Your task to perform on an android device: change keyboard looks Image 0: 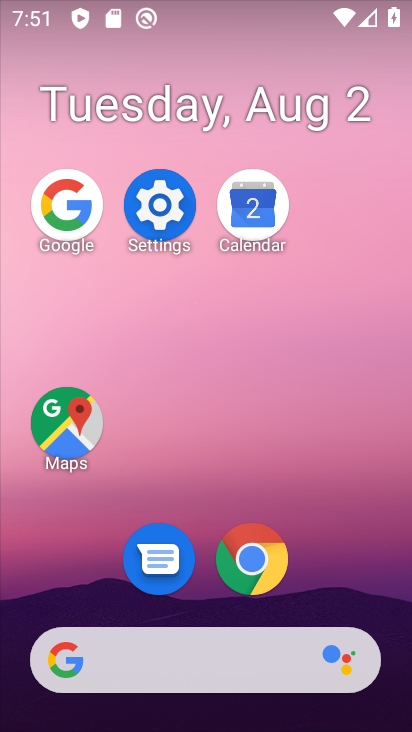
Step 0: click (171, 217)
Your task to perform on an android device: change keyboard looks Image 1: 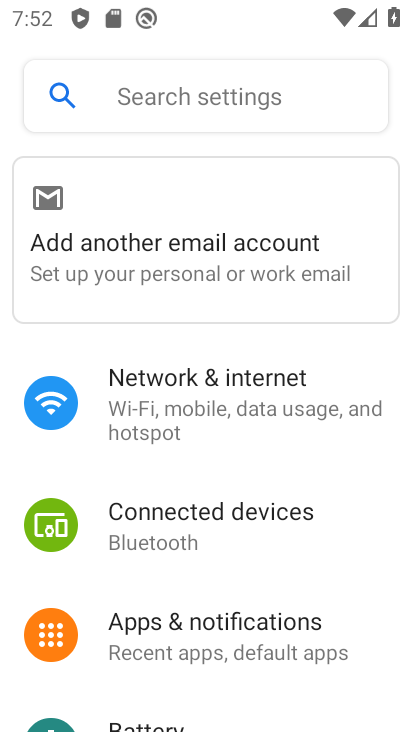
Step 1: drag from (230, 532) to (267, 157)
Your task to perform on an android device: change keyboard looks Image 2: 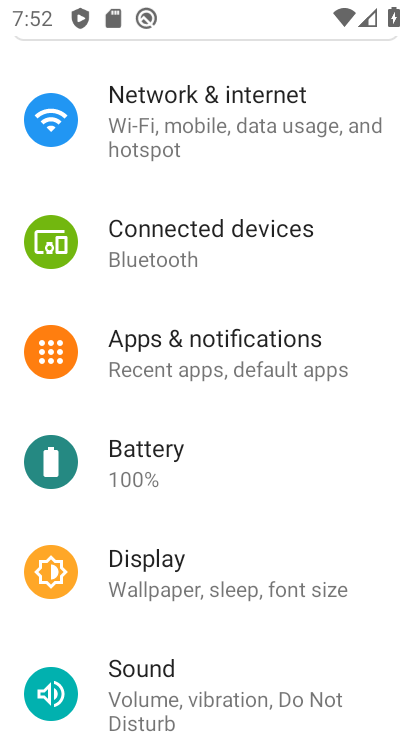
Step 2: drag from (289, 588) to (310, 122)
Your task to perform on an android device: change keyboard looks Image 3: 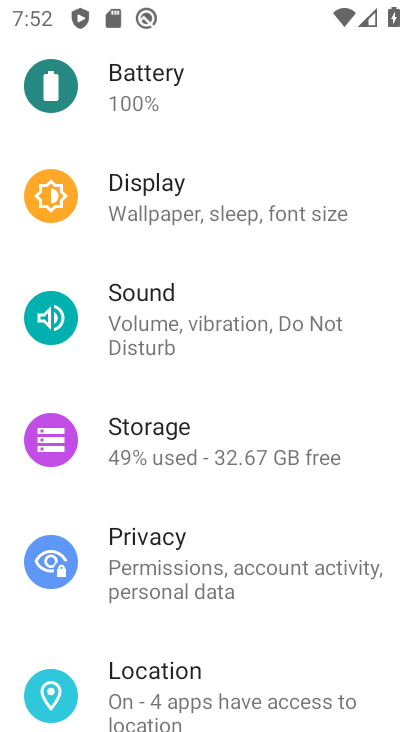
Step 3: drag from (281, 570) to (290, 171)
Your task to perform on an android device: change keyboard looks Image 4: 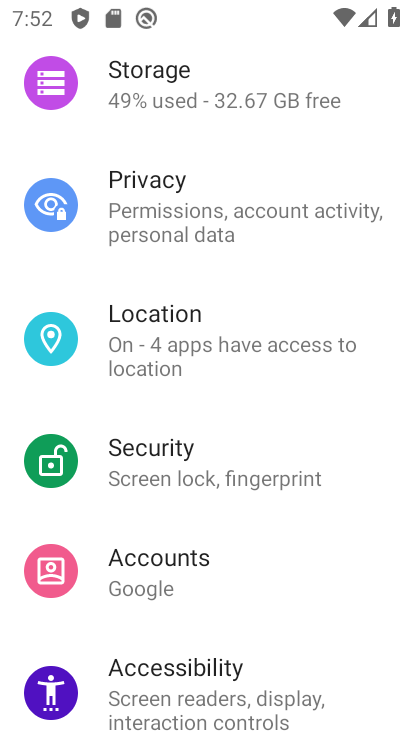
Step 4: drag from (290, 168) to (316, 364)
Your task to perform on an android device: change keyboard looks Image 5: 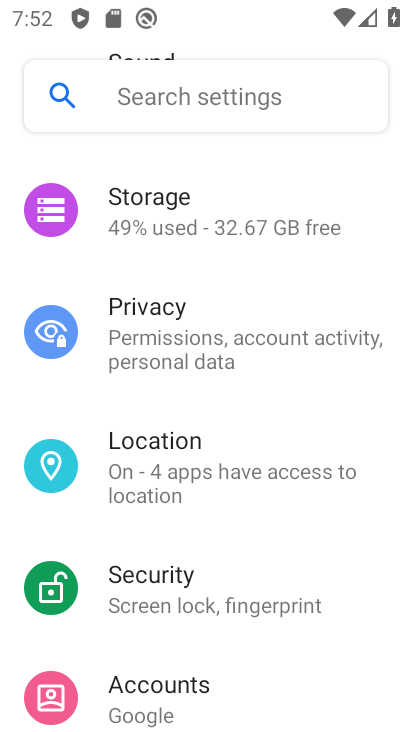
Step 5: drag from (285, 593) to (309, 284)
Your task to perform on an android device: change keyboard looks Image 6: 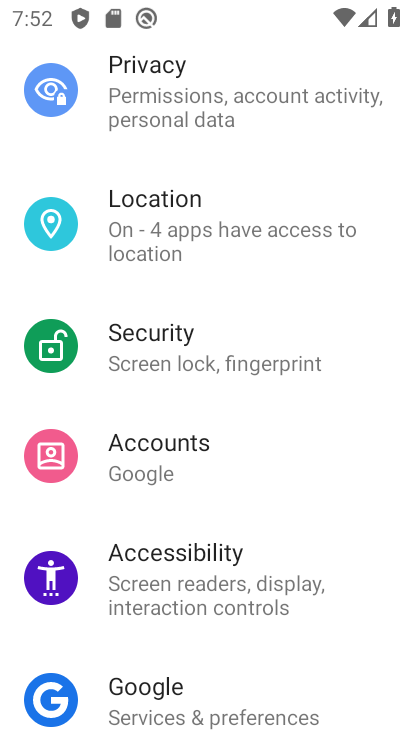
Step 6: drag from (307, 659) to (315, 309)
Your task to perform on an android device: change keyboard looks Image 7: 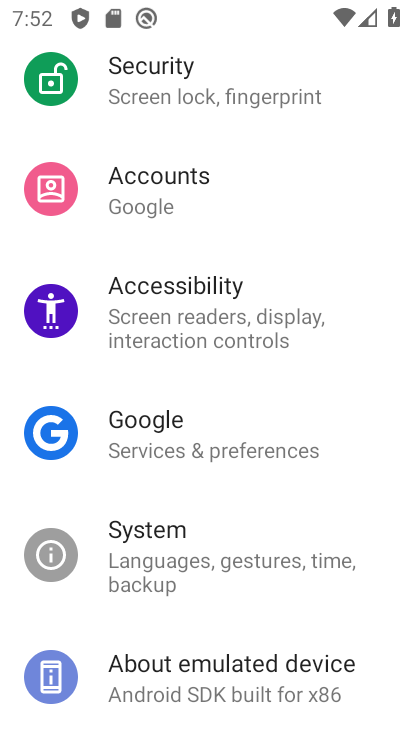
Step 7: drag from (307, 629) to (273, 275)
Your task to perform on an android device: change keyboard looks Image 8: 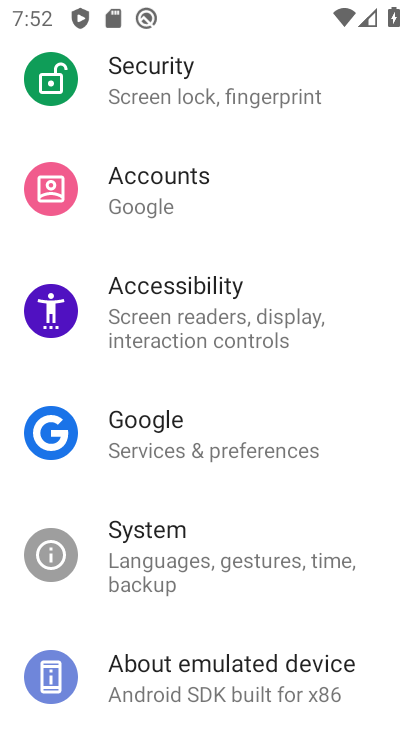
Step 8: click (247, 563)
Your task to perform on an android device: change keyboard looks Image 9: 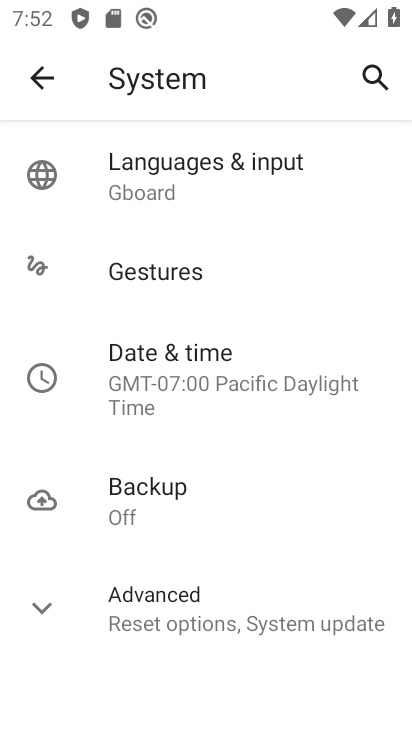
Step 9: click (118, 146)
Your task to perform on an android device: change keyboard looks Image 10: 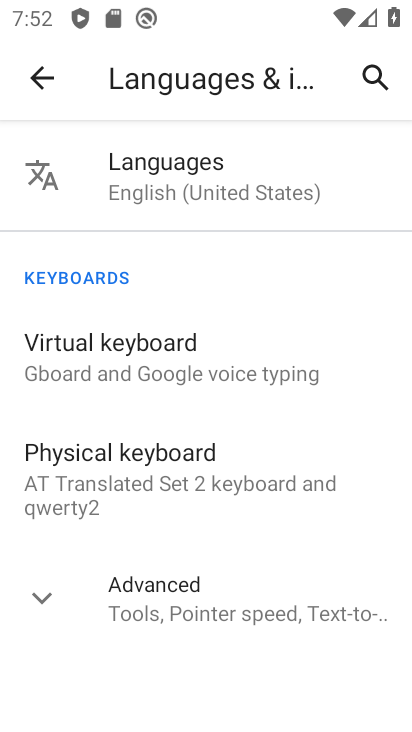
Step 10: click (155, 354)
Your task to perform on an android device: change keyboard looks Image 11: 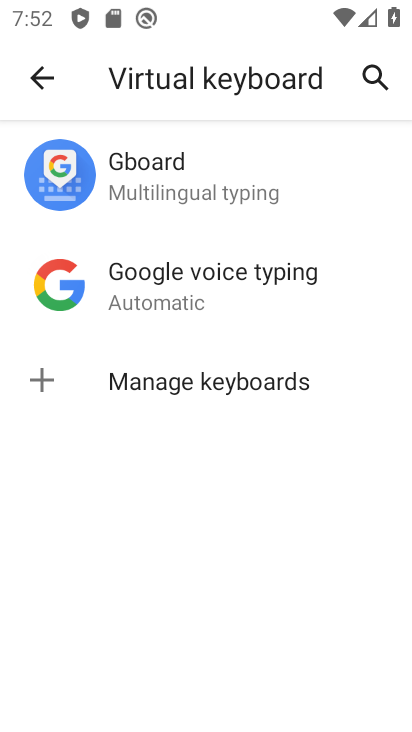
Step 11: click (209, 153)
Your task to perform on an android device: change keyboard looks Image 12: 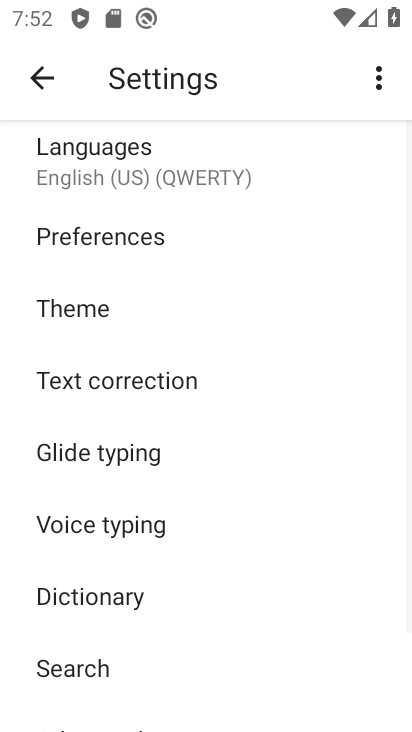
Step 12: click (103, 308)
Your task to perform on an android device: change keyboard looks Image 13: 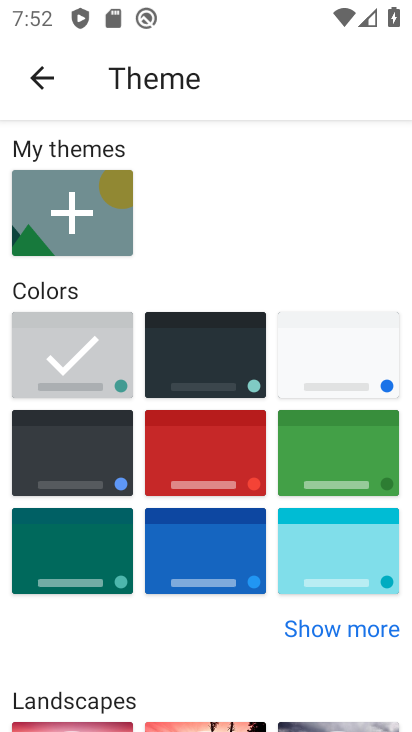
Step 13: click (250, 395)
Your task to perform on an android device: change keyboard looks Image 14: 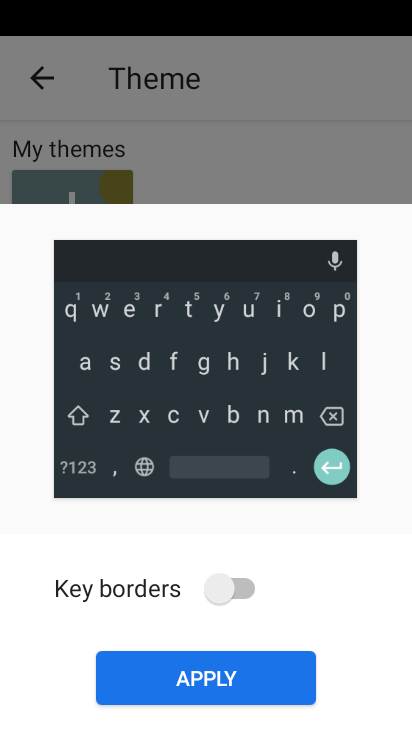
Step 14: click (221, 680)
Your task to perform on an android device: change keyboard looks Image 15: 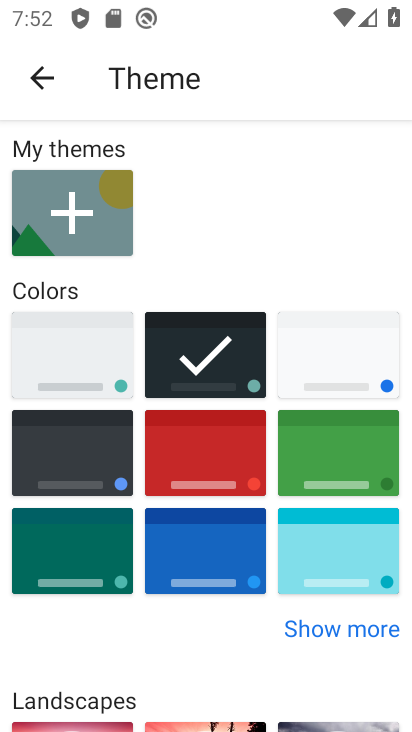
Step 15: task complete